Your task to perform on an android device: Go to Android settings Image 0: 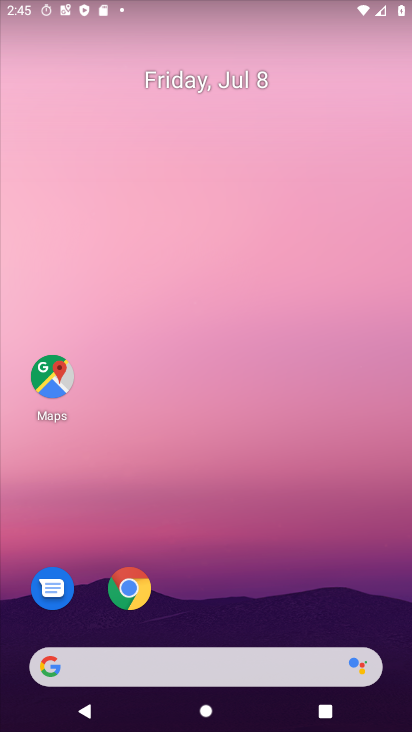
Step 0: press home button
Your task to perform on an android device: Go to Android settings Image 1: 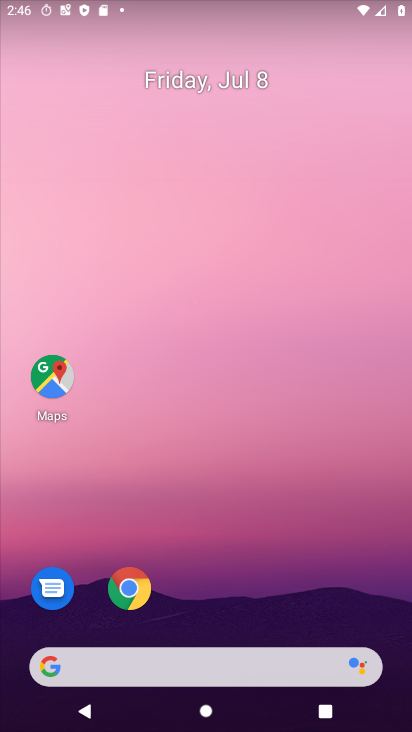
Step 1: drag from (247, 624) to (253, 88)
Your task to perform on an android device: Go to Android settings Image 2: 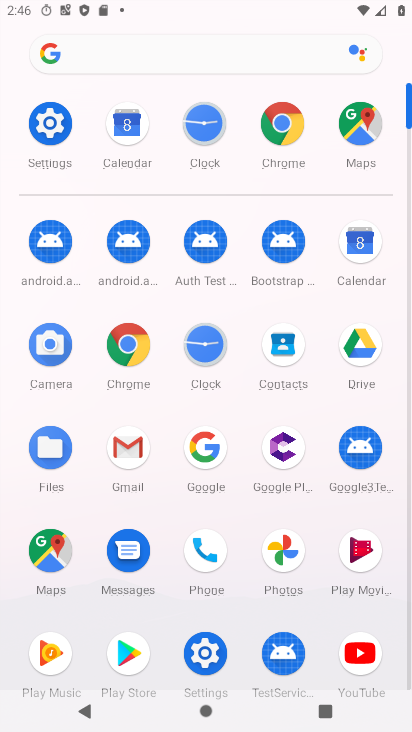
Step 2: click (42, 124)
Your task to perform on an android device: Go to Android settings Image 3: 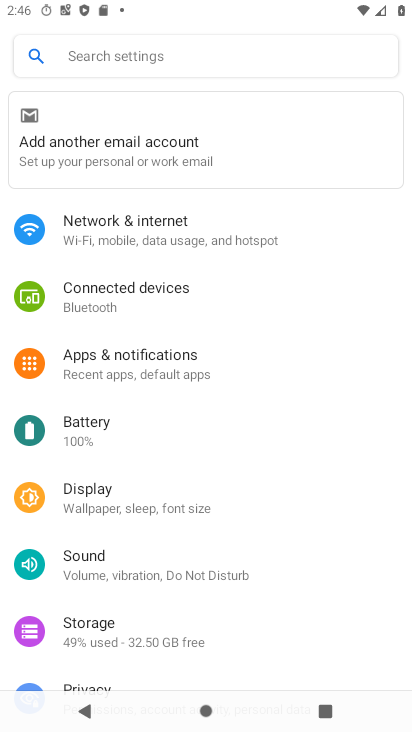
Step 3: task complete